Your task to perform on an android device: Check the news Image 0: 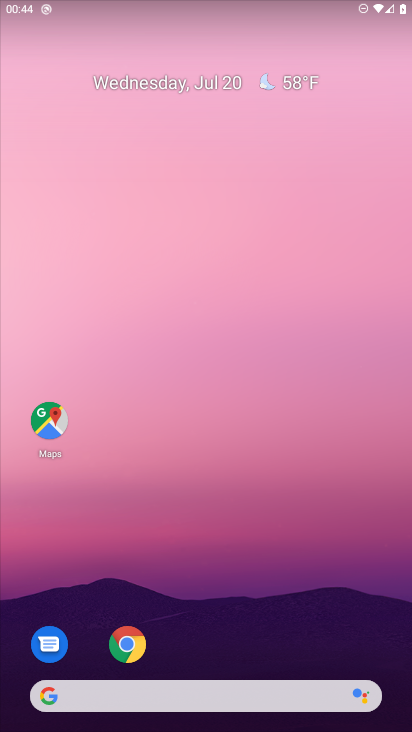
Step 0: click (155, 699)
Your task to perform on an android device: Check the news Image 1: 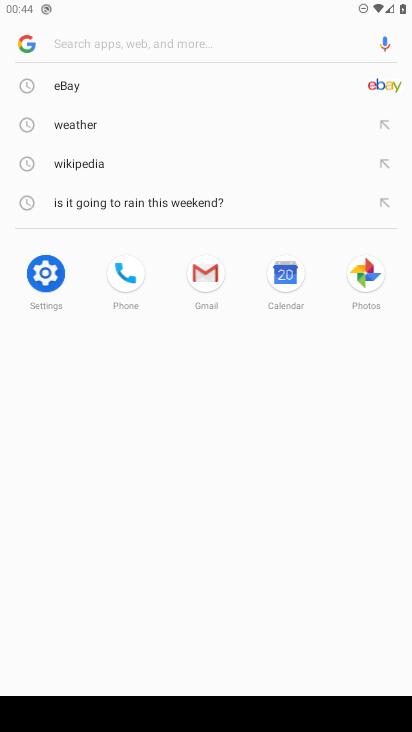
Step 1: type "news"
Your task to perform on an android device: Check the news Image 2: 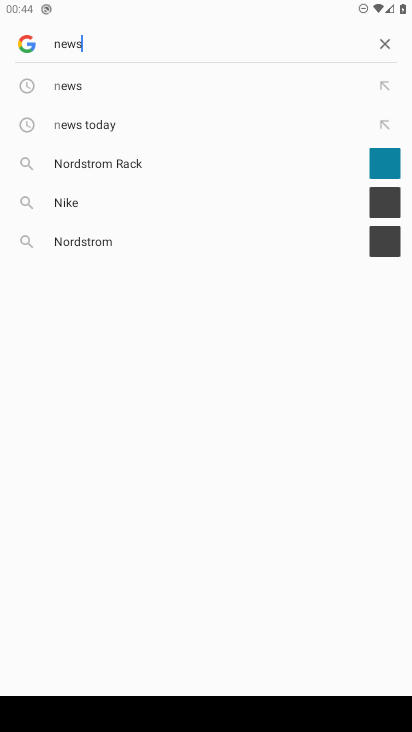
Step 2: type ""
Your task to perform on an android device: Check the news Image 3: 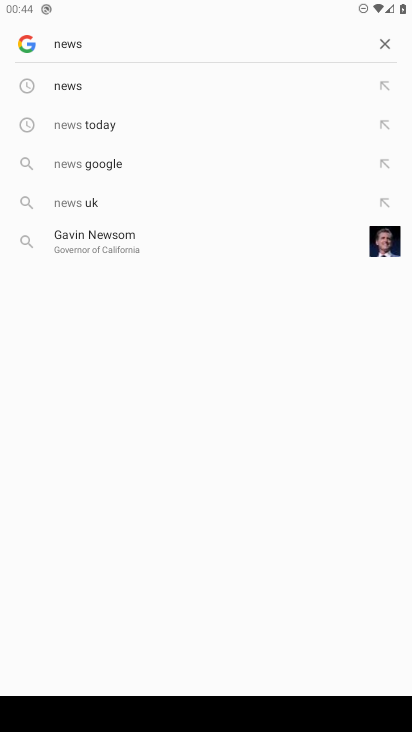
Step 3: click (66, 78)
Your task to perform on an android device: Check the news Image 4: 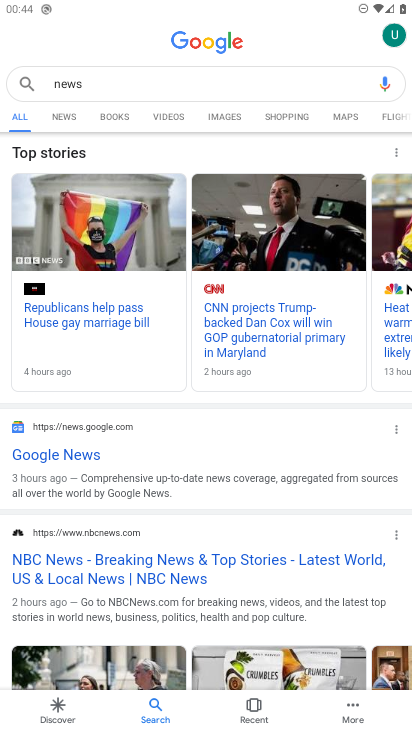
Step 4: task complete